Your task to perform on an android device: turn off location Image 0: 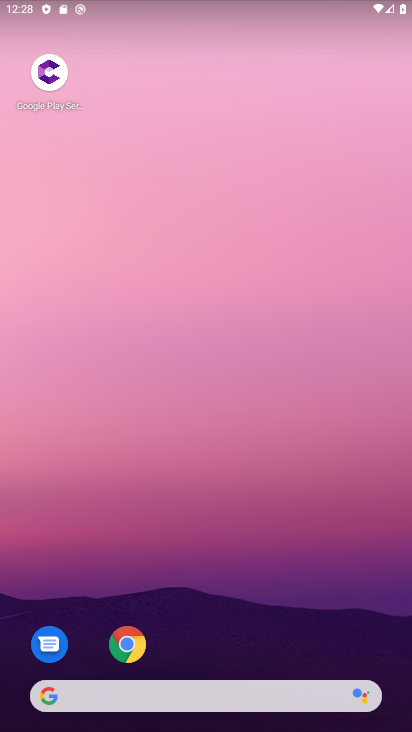
Step 0: drag from (204, 655) to (223, 0)
Your task to perform on an android device: turn off location Image 1: 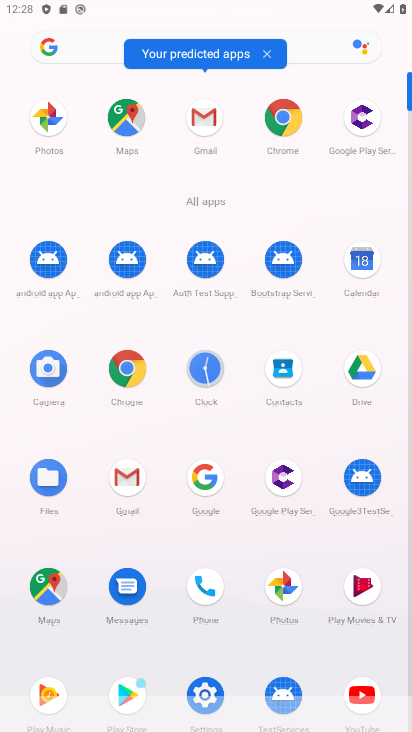
Step 1: drag from (246, 566) to (226, 117)
Your task to perform on an android device: turn off location Image 2: 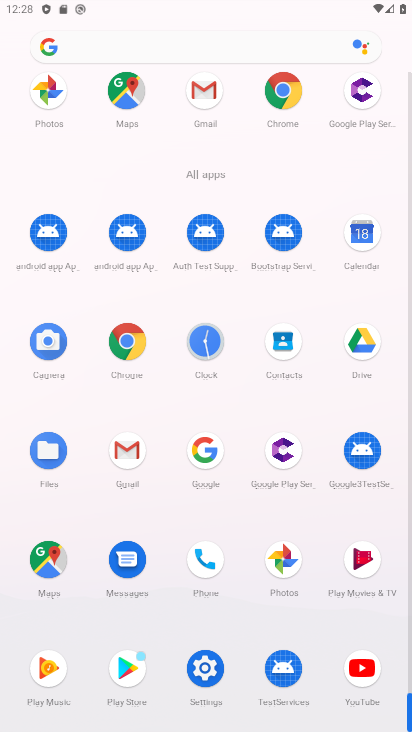
Step 2: click (202, 658)
Your task to perform on an android device: turn off location Image 3: 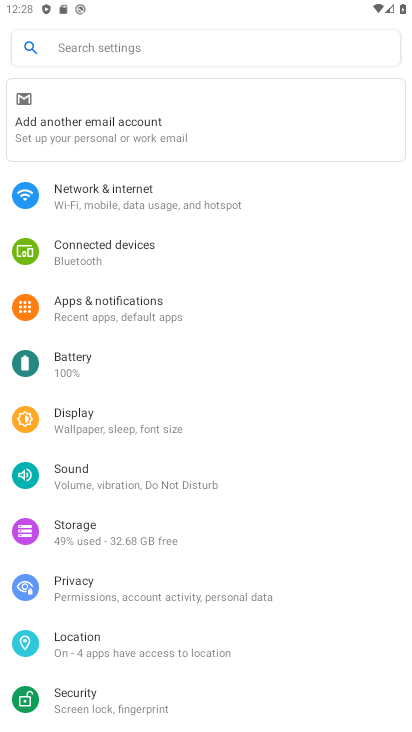
Step 3: click (108, 640)
Your task to perform on an android device: turn off location Image 4: 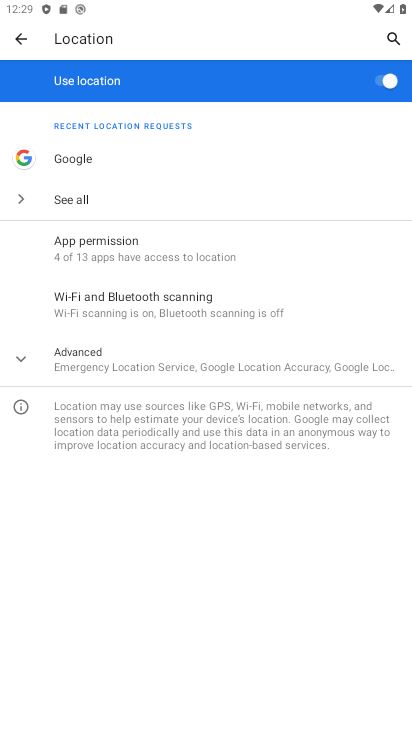
Step 4: click (384, 82)
Your task to perform on an android device: turn off location Image 5: 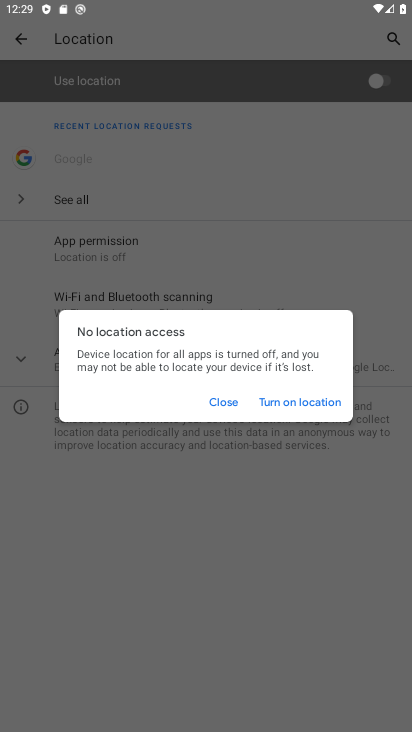
Step 5: click (222, 401)
Your task to perform on an android device: turn off location Image 6: 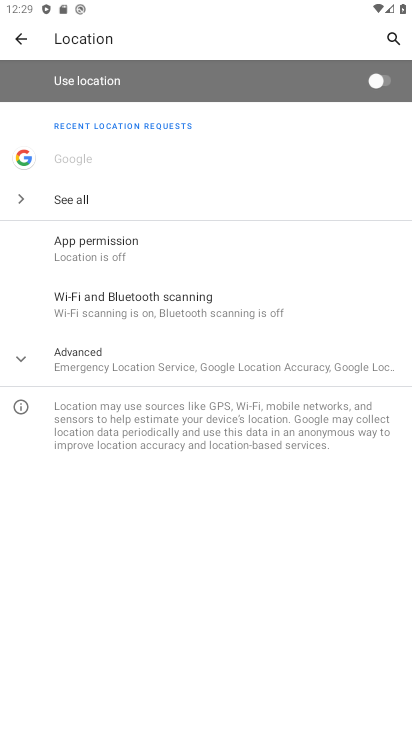
Step 6: task complete